Your task to perform on an android device: What's the news in Colombia? Image 0: 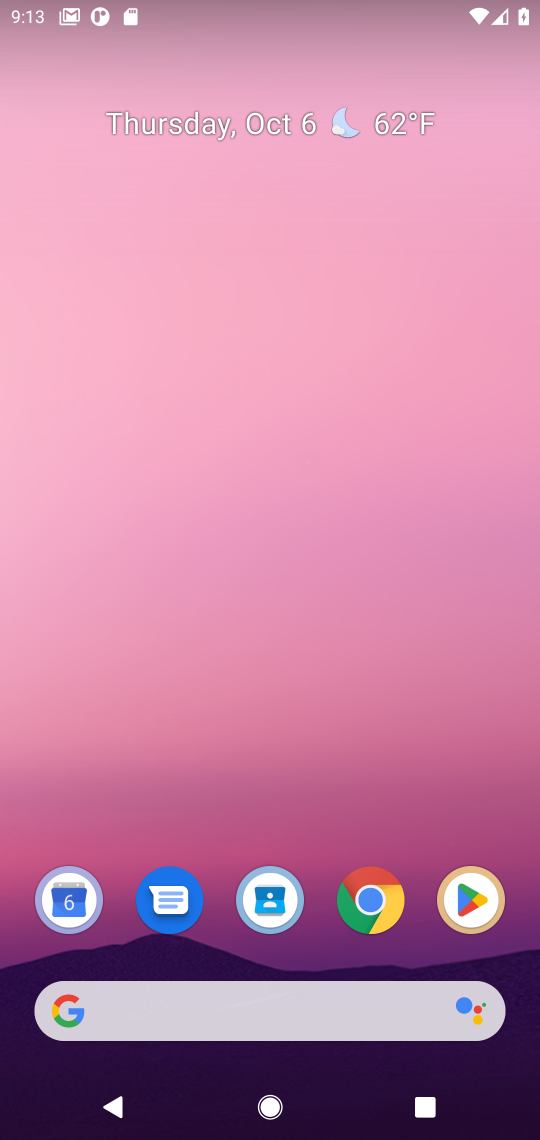
Step 0: press home button
Your task to perform on an android device: What's the news in Colombia? Image 1: 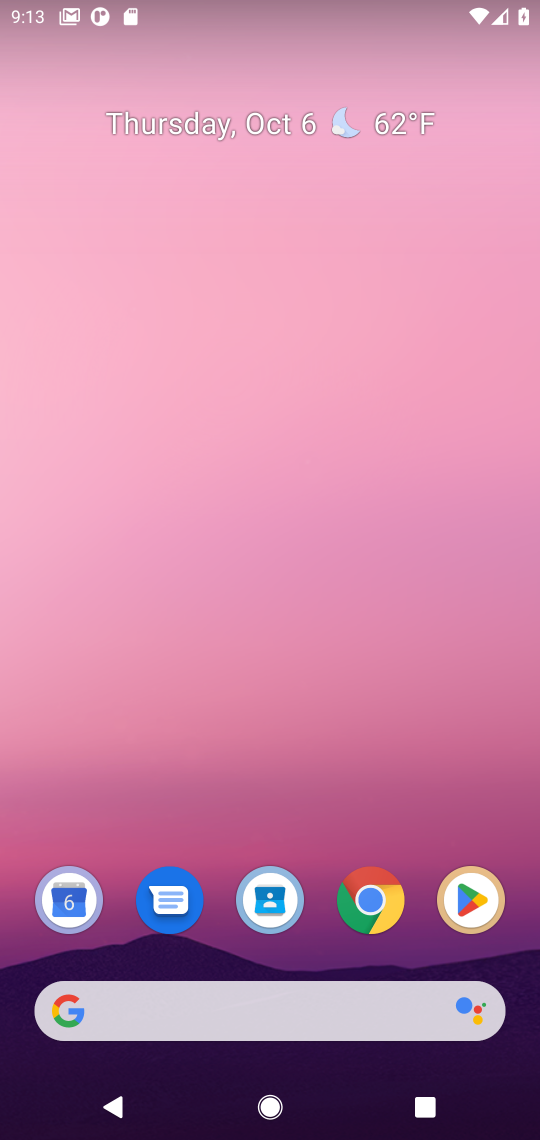
Step 1: click (307, 1004)
Your task to perform on an android device: What's the news in Colombia? Image 2: 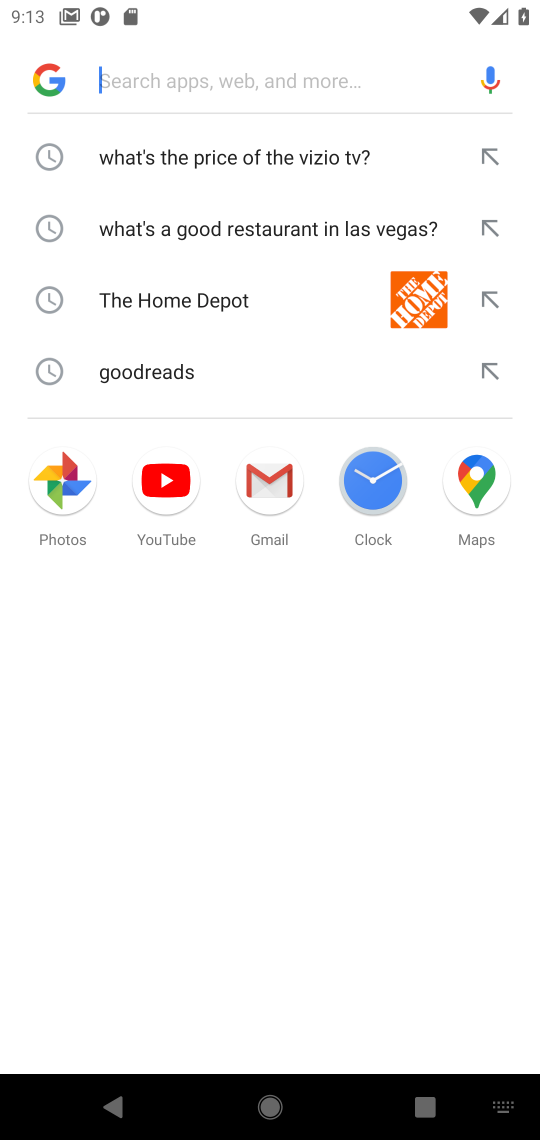
Step 2: type "What's the news in Colombia?"
Your task to perform on an android device: What's the news in Colombia? Image 3: 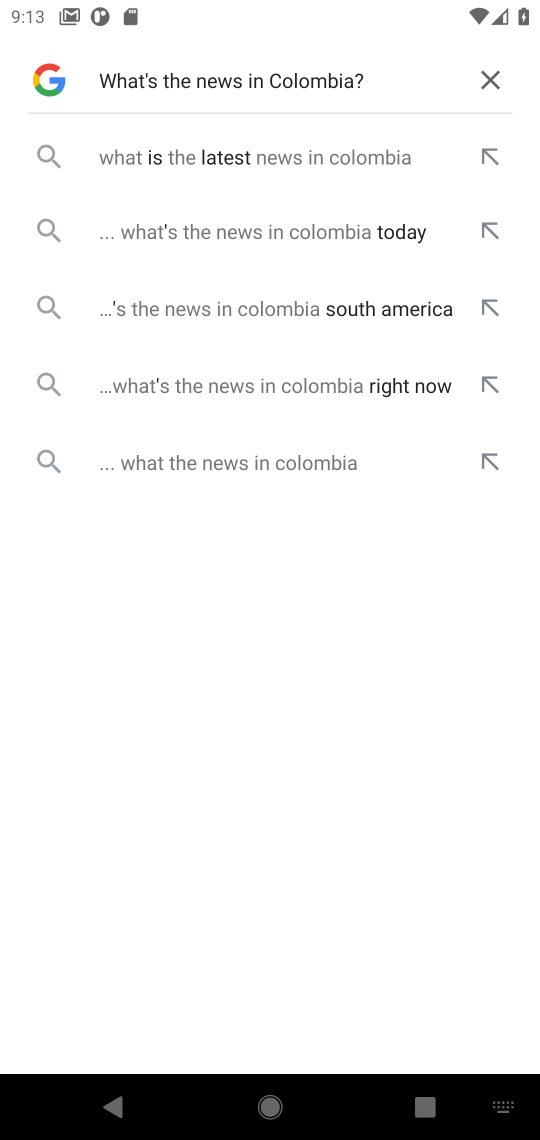
Step 3: press enter
Your task to perform on an android device: What's the news in Colombia? Image 4: 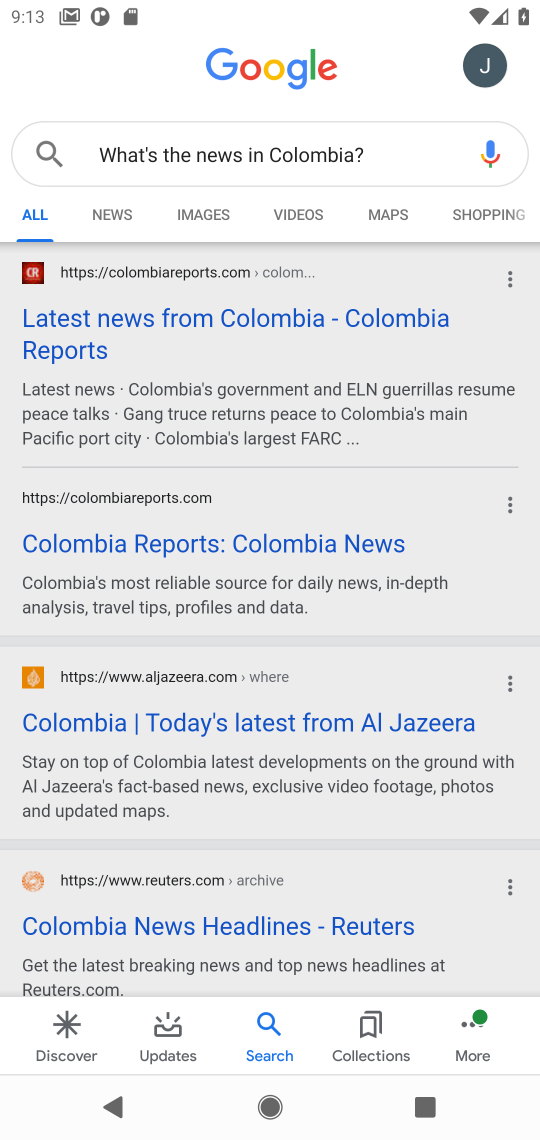
Step 4: click (201, 325)
Your task to perform on an android device: What's the news in Colombia? Image 5: 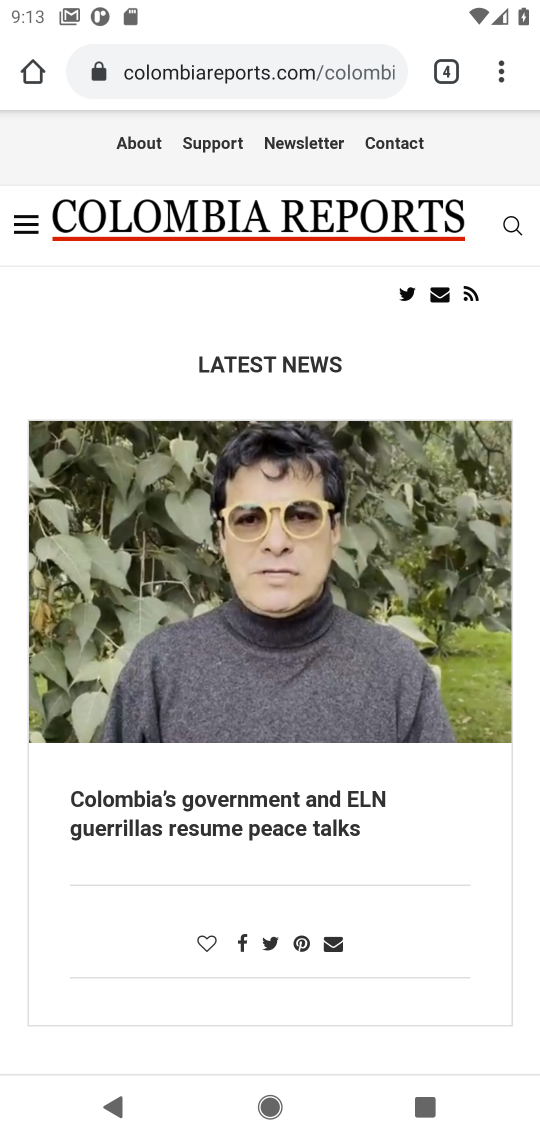
Step 5: task complete